Your task to perform on an android device: Open calendar and show me the fourth week of next month Image 0: 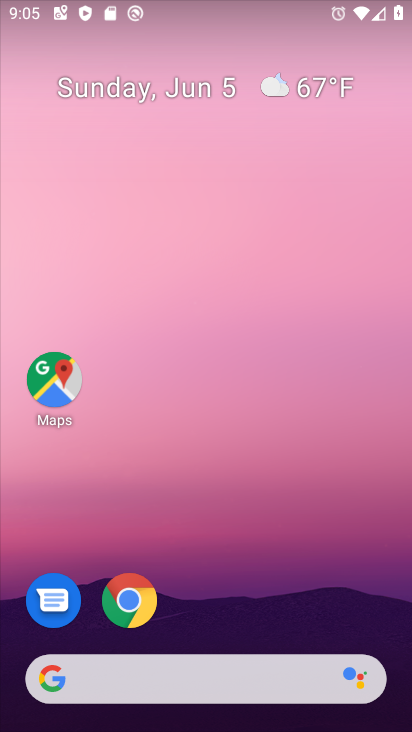
Step 0: drag from (369, 627) to (223, 8)
Your task to perform on an android device: Open calendar and show me the fourth week of next month Image 1: 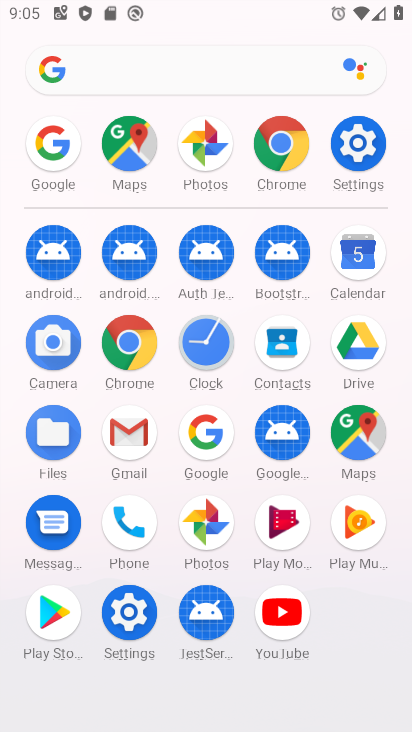
Step 1: click (348, 242)
Your task to perform on an android device: Open calendar and show me the fourth week of next month Image 2: 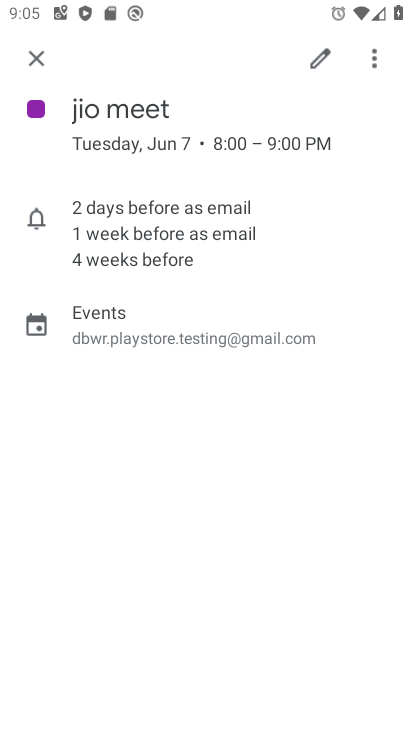
Step 2: press back button
Your task to perform on an android device: Open calendar and show me the fourth week of next month Image 3: 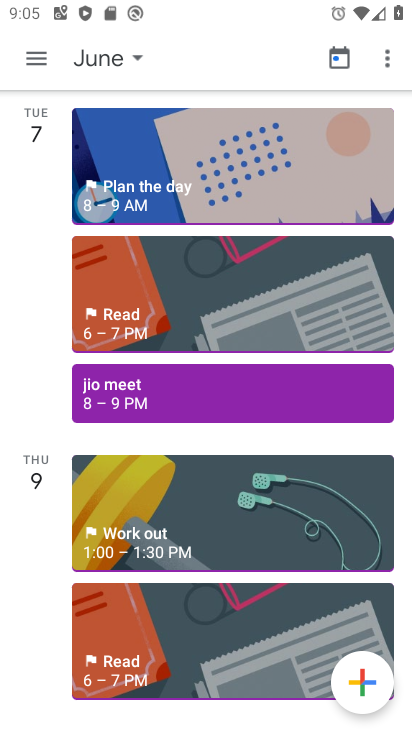
Step 3: click (72, 51)
Your task to perform on an android device: Open calendar and show me the fourth week of next month Image 4: 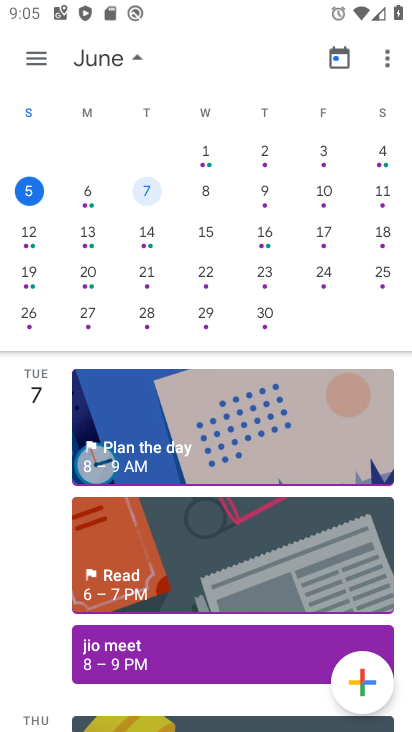
Step 4: drag from (362, 213) to (34, 183)
Your task to perform on an android device: Open calendar and show me the fourth week of next month Image 5: 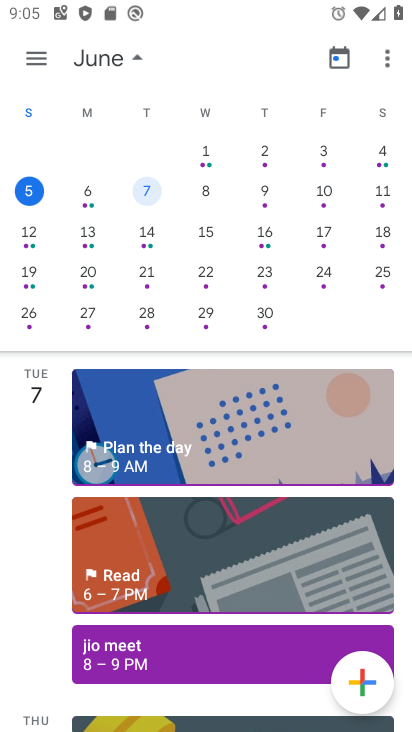
Step 5: drag from (360, 151) to (33, 235)
Your task to perform on an android device: Open calendar and show me the fourth week of next month Image 6: 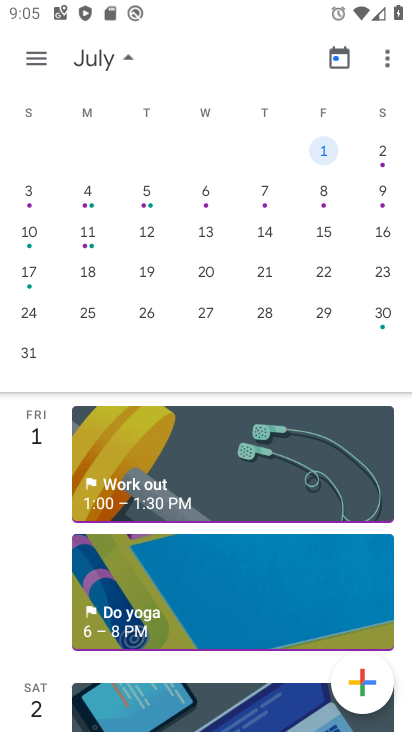
Step 6: click (376, 318)
Your task to perform on an android device: Open calendar and show me the fourth week of next month Image 7: 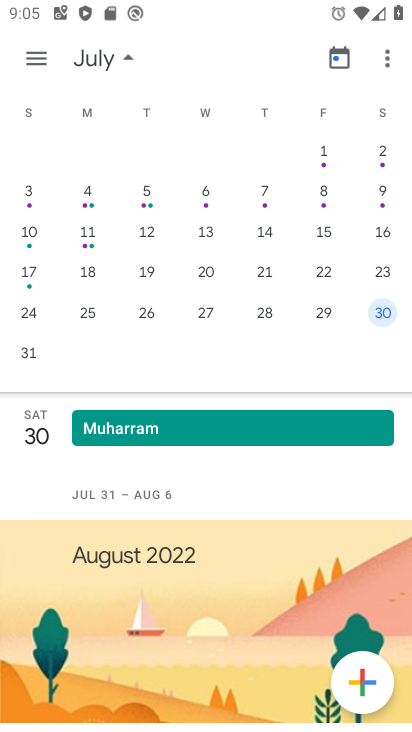
Step 7: task complete